Your task to perform on an android device: Open the files app Image 0: 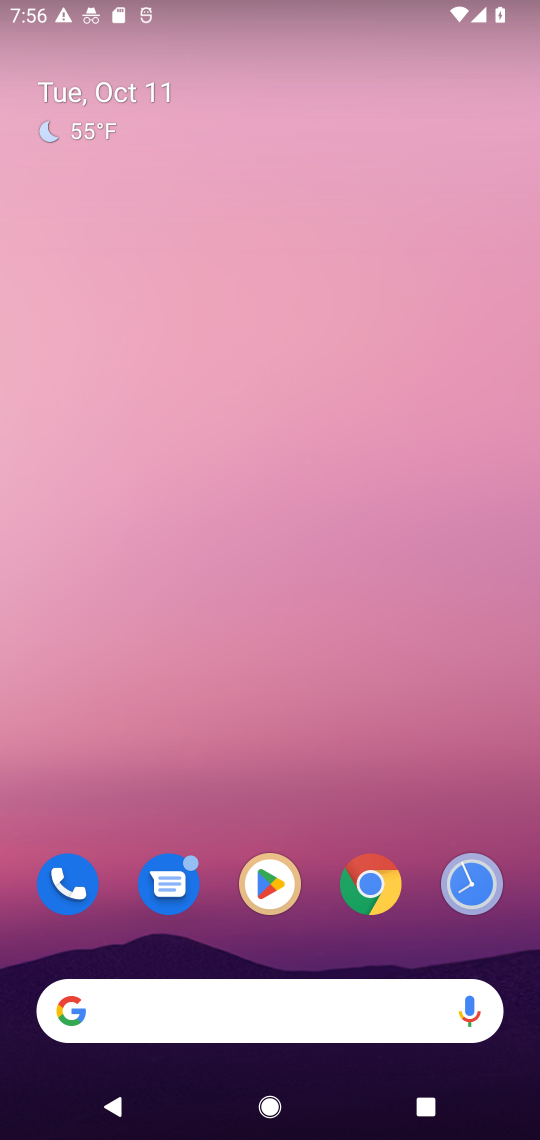
Step 0: drag from (292, 897) to (319, 299)
Your task to perform on an android device: Open the files app Image 1: 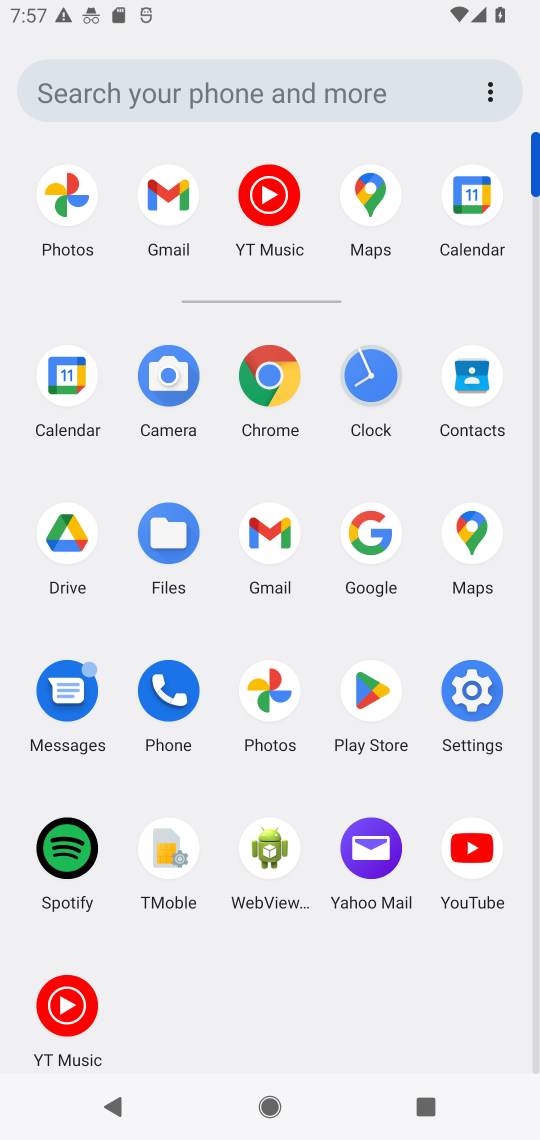
Step 1: click (172, 526)
Your task to perform on an android device: Open the files app Image 2: 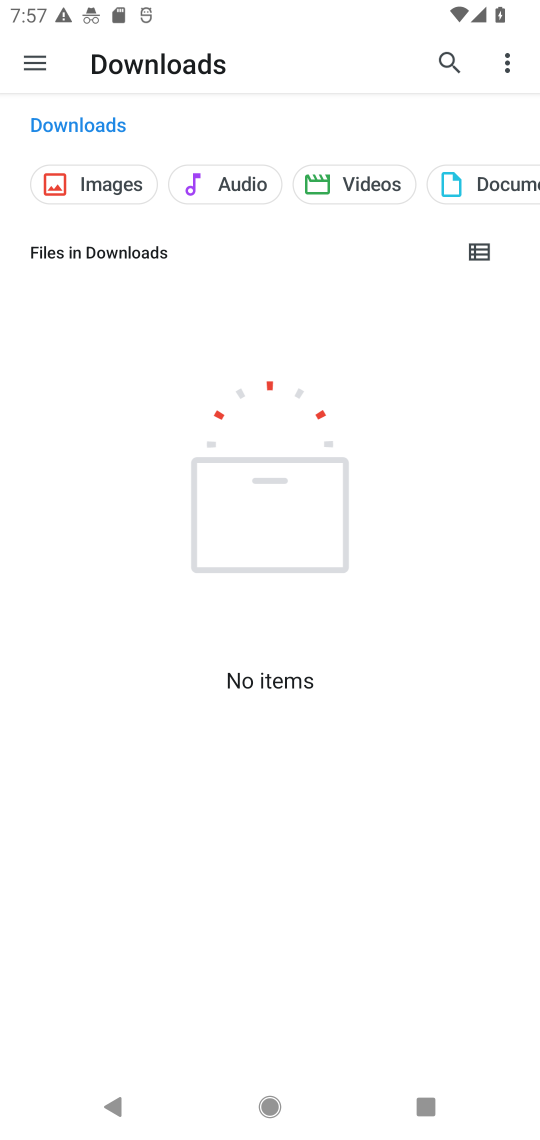
Step 2: task complete